Your task to perform on an android device: Open the Play Movies app and select the watchlist tab. Image 0: 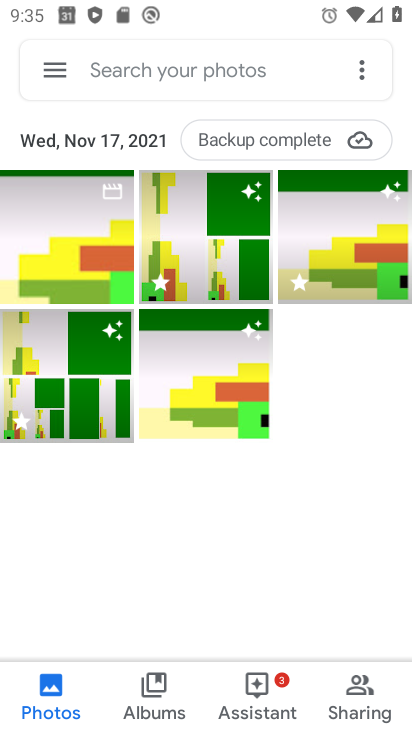
Step 0: press home button
Your task to perform on an android device: Open the Play Movies app and select the watchlist tab. Image 1: 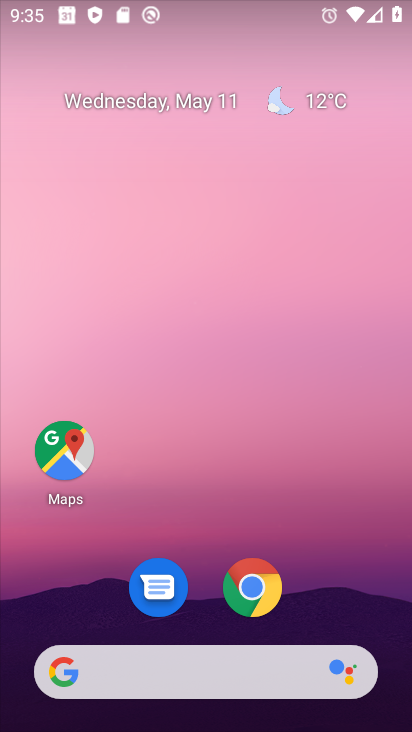
Step 1: drag from (340, 595) to (319, 0)
Your task to perform on an android device: Open the Play Movies app and select the watchlist tab. Image 2: 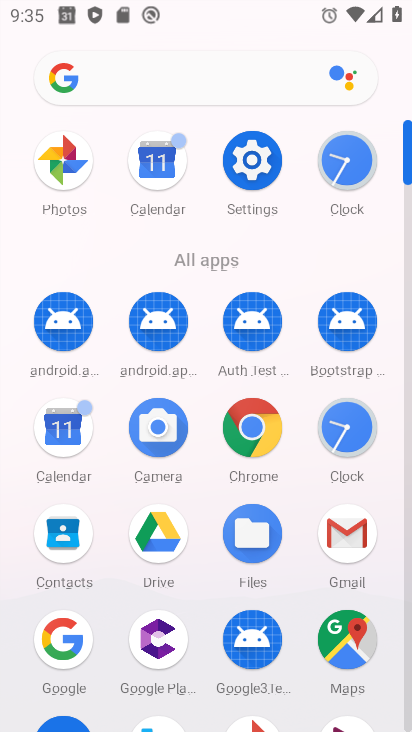
Step 2: drag from (403, 568) to (412, 511)
Your task to perform on an android device: Open the Play Movies app and select the watchlist tab. Image 3: 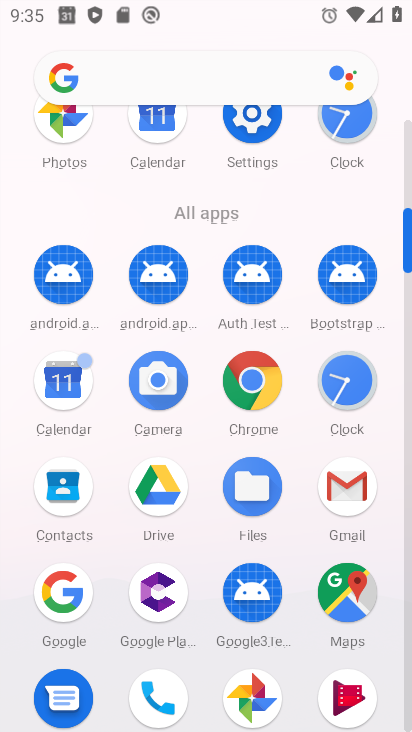
Step 3: click (349, 684)
Your task to perform on an android device: Open the Play Movies app and select the watchlist tab. Image 4: 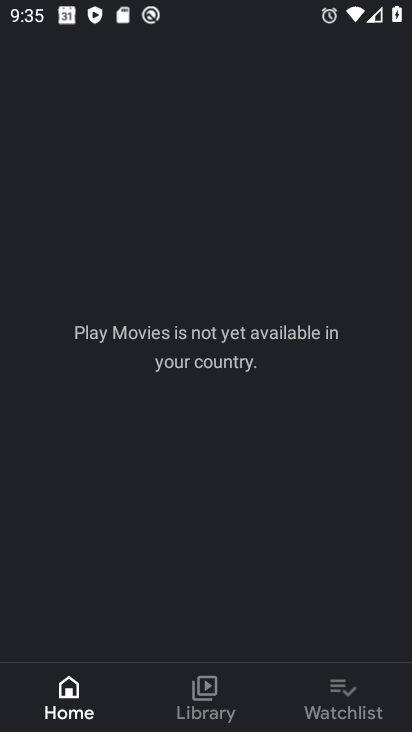
Step 4: click (341, 693)
Your task to perform on an android device: Open the Play Movies app and select the watchlist tab. Image 5: 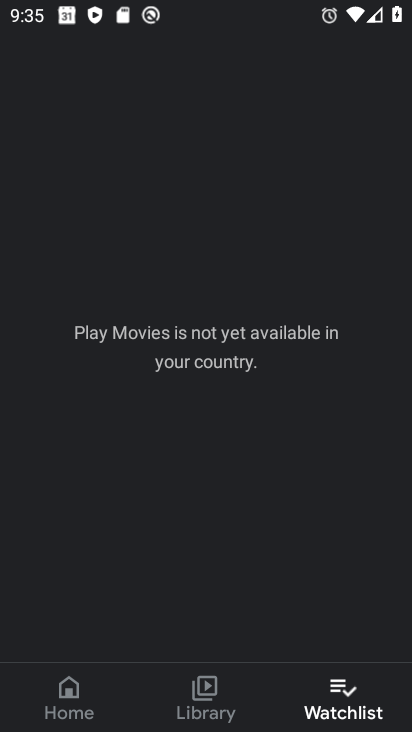
Step 5: task complete